Your task to perform on an android device: Open Google Chrome Image 0: 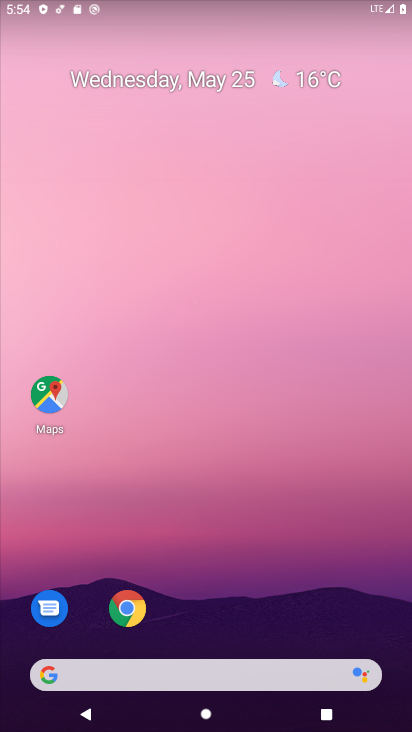
Step 0: drag from (328, 663) to (365, 8)
Your task to perform on an android device: Open Google Chrome Image 1: 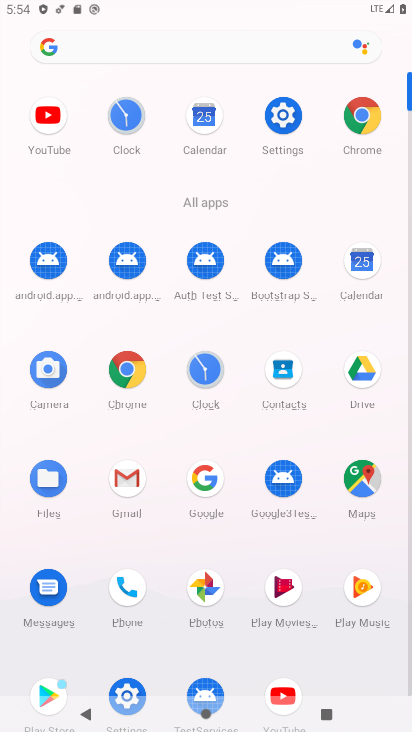
Step 1: click (118, 370)
Your task to perform on an android device: Open Google Chrome Image 2: 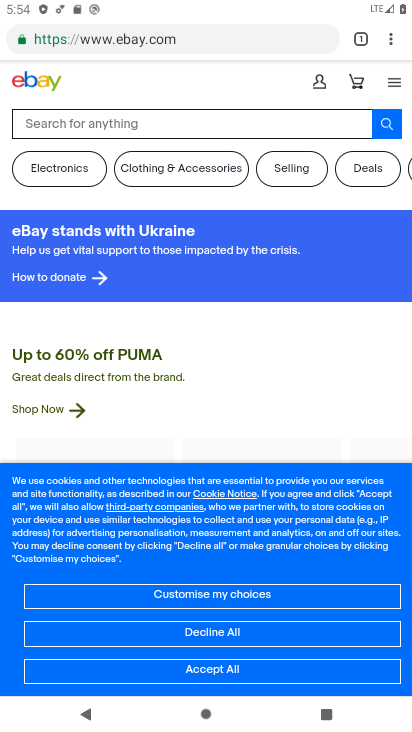
Step 2: task complete